Your task to perform on an android device: Go to Reddit.com Image 0: 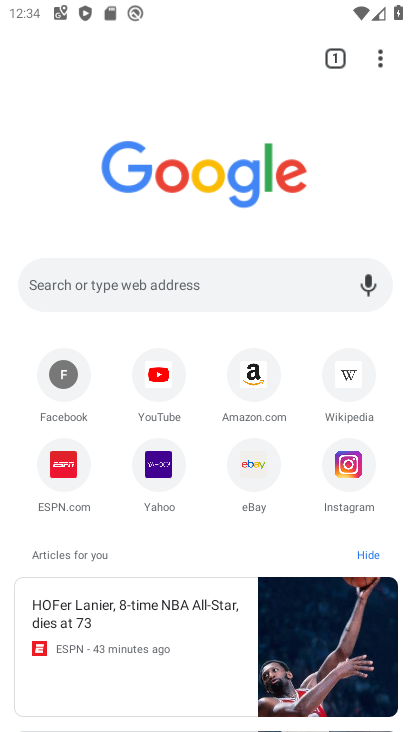
Step 0: click (209, 284)
Your task to perform on an android device: Go to Reddit.com Image 1: 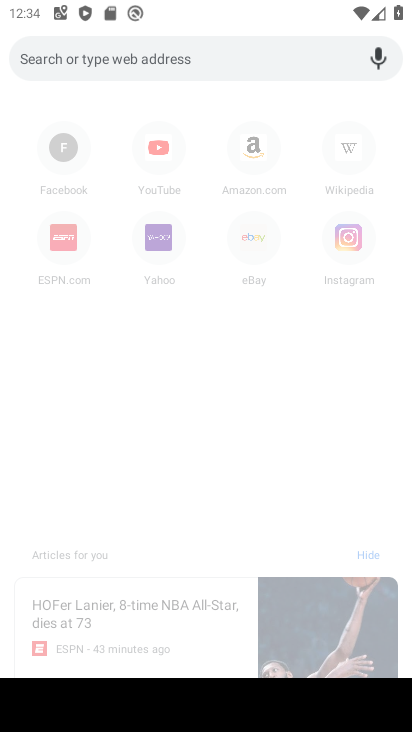
Step 1: type "reddit.com"
Your task to perform on an android device: Go to Reddit.com Image 2: 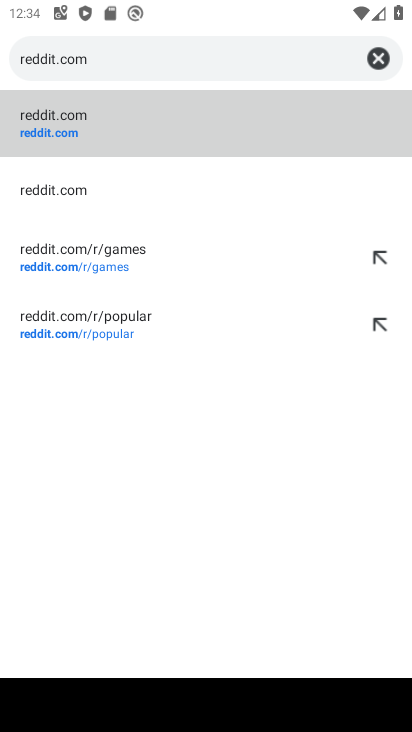
Step 2: click (266, 142)
Your task to perform on an android device: Go to Reddit.com Image 3: 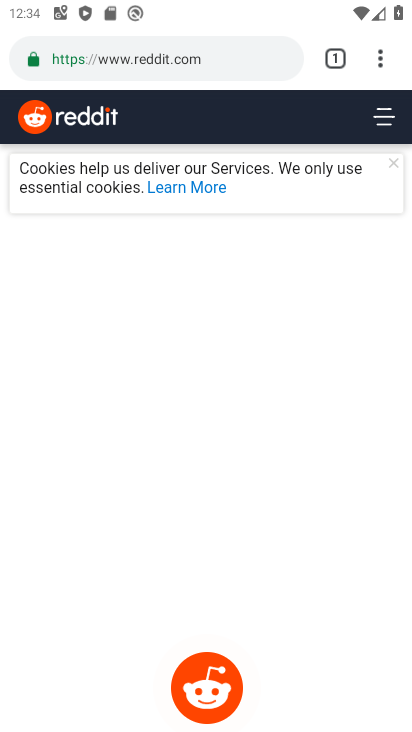
Step 3: task complete